Your task to perform on an android device: turn off wifi Image 0: 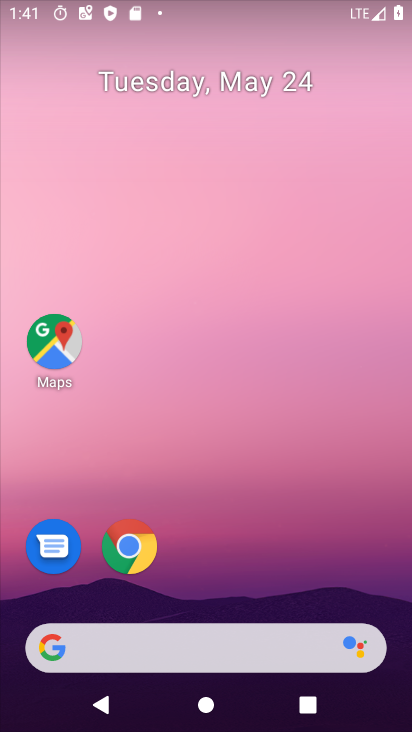
Step 0: drag from (213, 574) to (341, 97)
Your task to perform on an android device: turn off wifi Image 1: 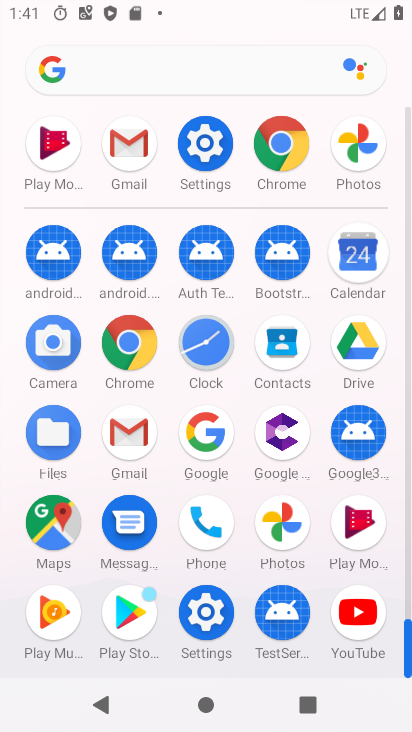
Step 1: click (208, 132)
Your task to perform on an android device: turn off wifi Image 2: 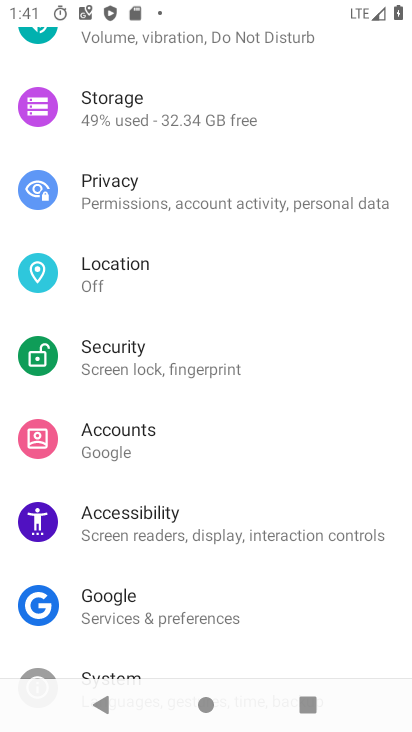
Step 2: drag from (166, 111) to (264, 613)
Your task to perform on an android device: turn off wifi Image 3: 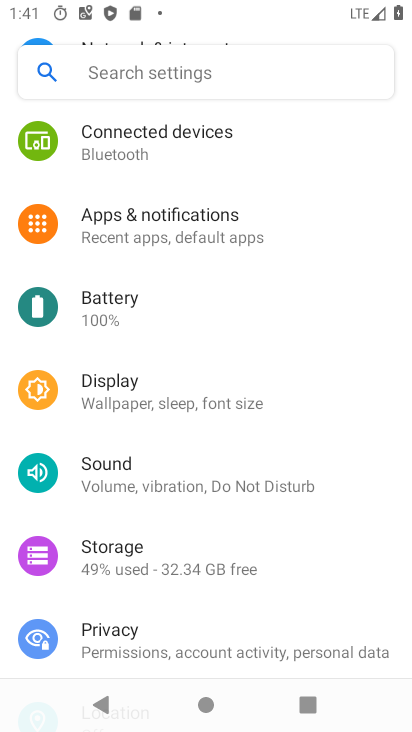
Step 3: drag from (174, 167) to (294, 731)
Your task to perform on an android device: turn off wifi Image 4: 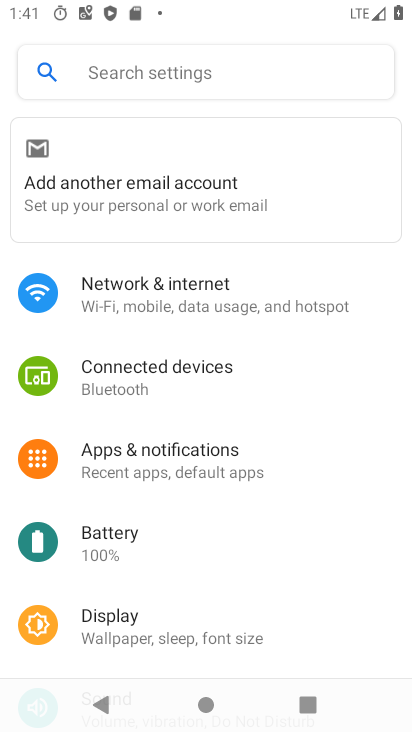
Step 4: click (168, 287)
Your task to perform on an android device: turn off wifi Image 5: 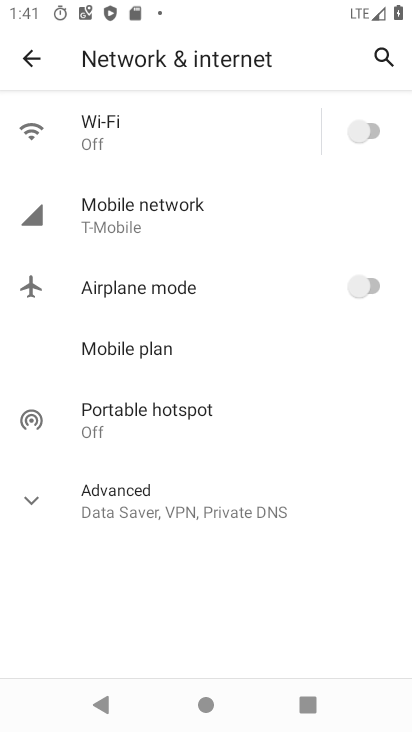
Step 5: click (169, 141)
Your task to perform on an android device: turn off wifi Image 6: 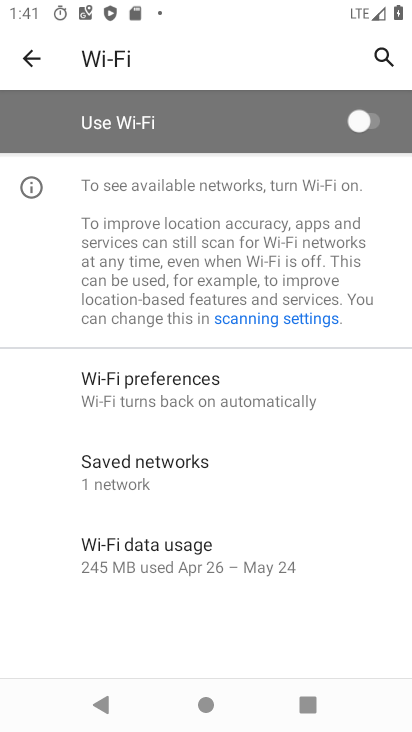
Step 6: task complete